Your task to perform on an android device: turn off javascript in the chrome app Image 0: 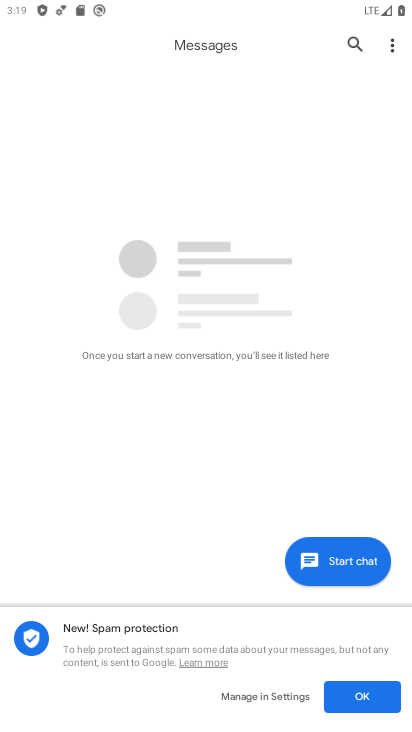
Step 0: press home button
Your task to perform on an android device: turn off javascript in the chrome app Image 1: 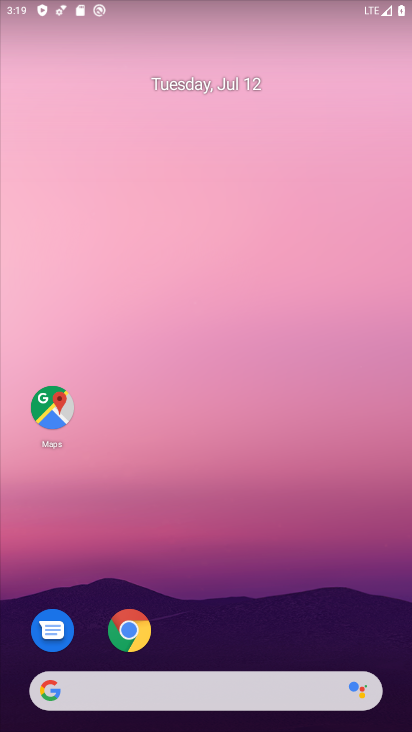
Step 1: click (133, 622)
Your task to perform on an android device: turn off javascript in the chrome app Image 2: 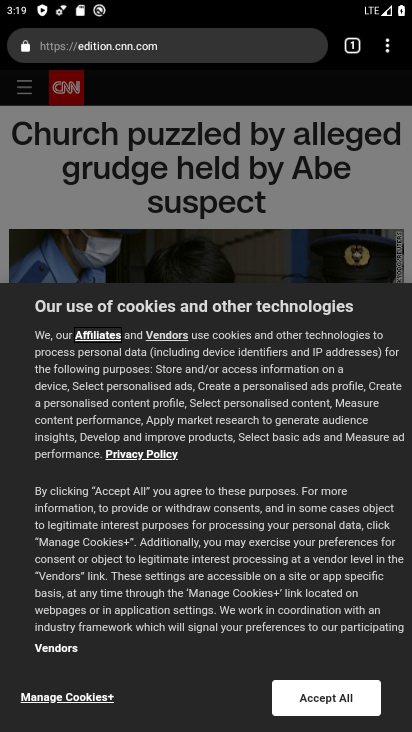
Step 2: click (379, 47)
Your task to perform on an android device: turn off javascript in the chrome app Image 3: 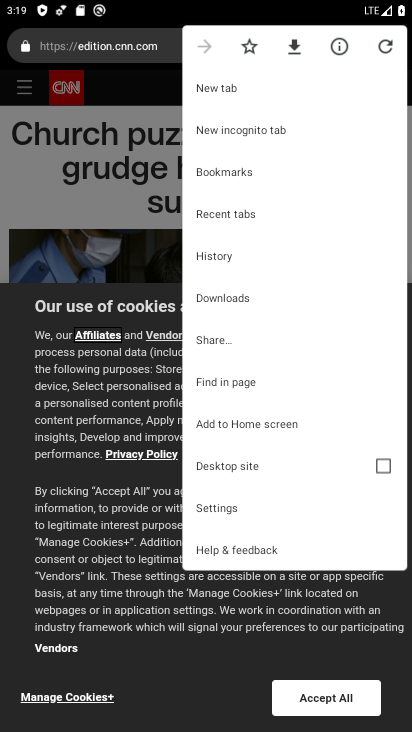
Step 3: click (231, 510)
Your task to perform on an android device: turn off javascript in the chrome app Image 4: 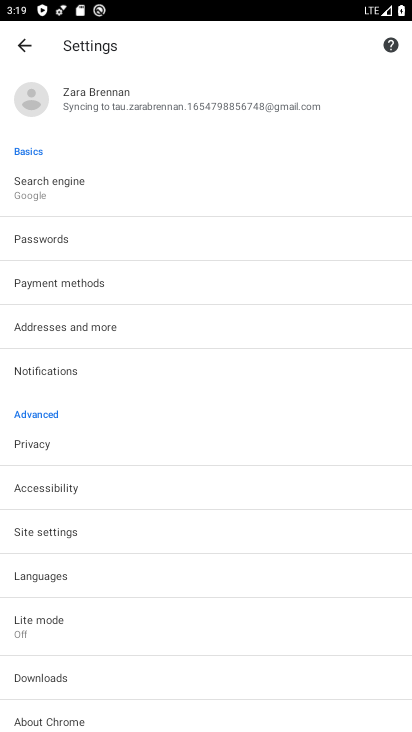
Step 4: click (76, 528)
Your task to perform on an android device: turn off javascript in the chrome app Image 5: 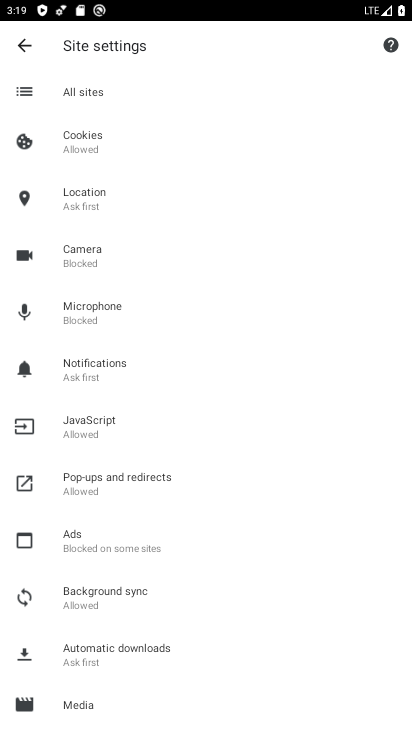
Step 5: click (109, 427)
Your task to perform on an android device: turn off javascript in the chrome app Image 6: 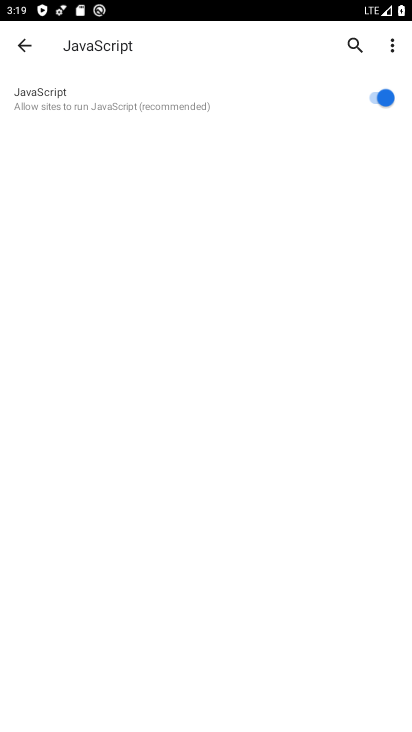
Step 6: click (364, 95)
Your task to perform on an android device: turn off javascript in the chrome app Image 7: 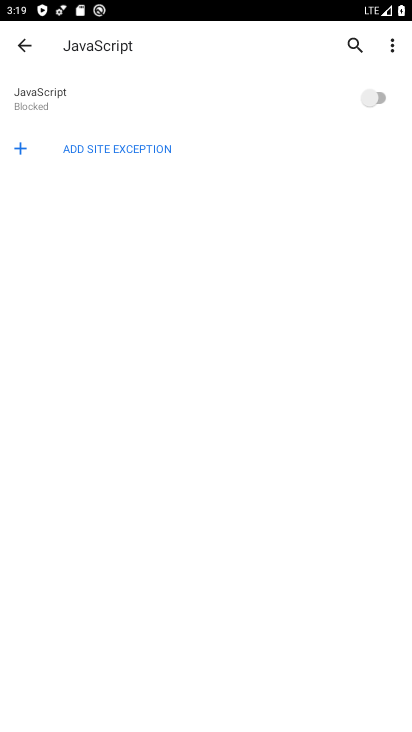
Step 7: task complete